Your task to perform on an android device: Search for Italian restaurants on Maps Image 0: 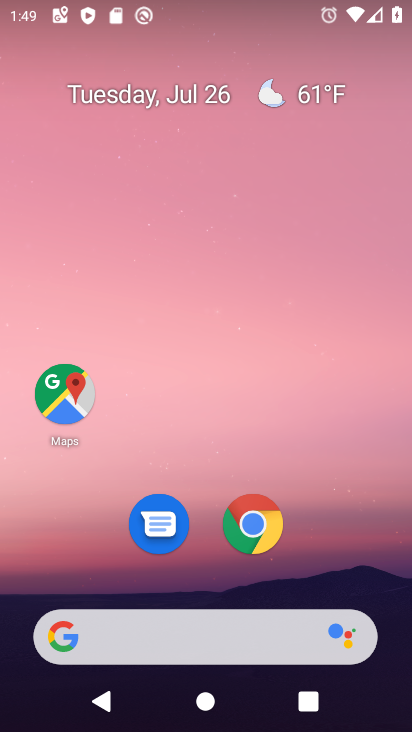
Step 0: press home button
Your task to perform on an android device: Search for Italian restaurants on Maps Image 1: 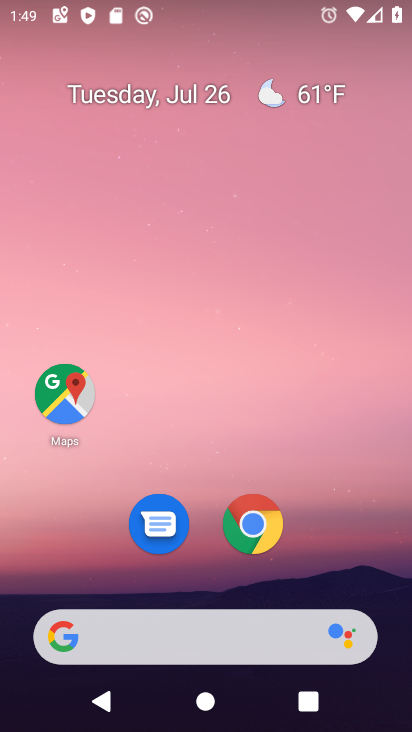
Step 1: click (66, 395)
Your task to perform on an android device: Search for Italian restaurants on Maps Image 2: 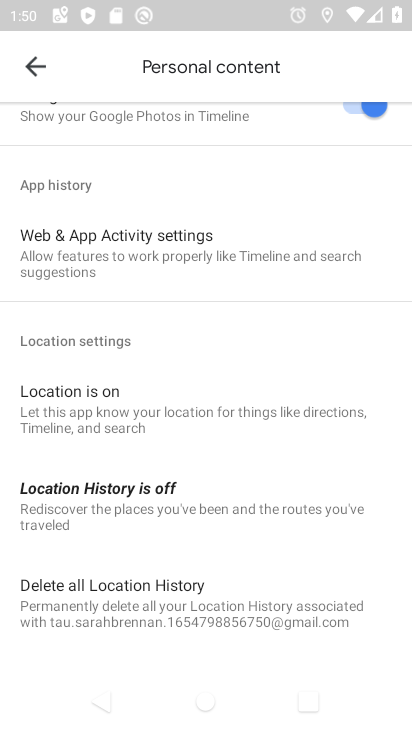
Step 2: click (19, 68)
Your task to perform on an android device: Search for Italian restaurants on Maps Image 3: 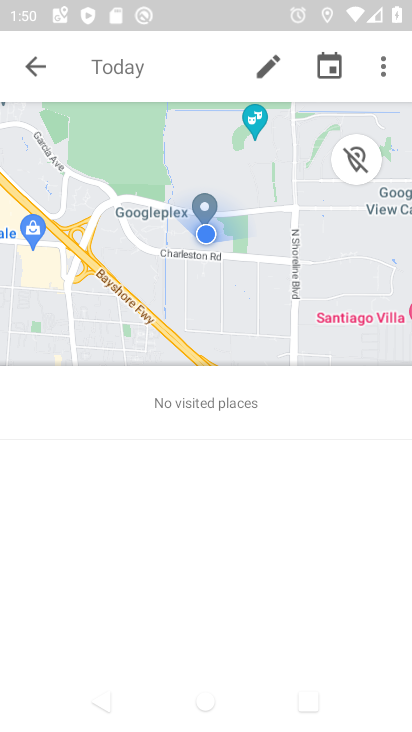
Step 3: click (37, 72)
Your task to perform on an android device: Search for Italian restaurants on Maps Image 4: 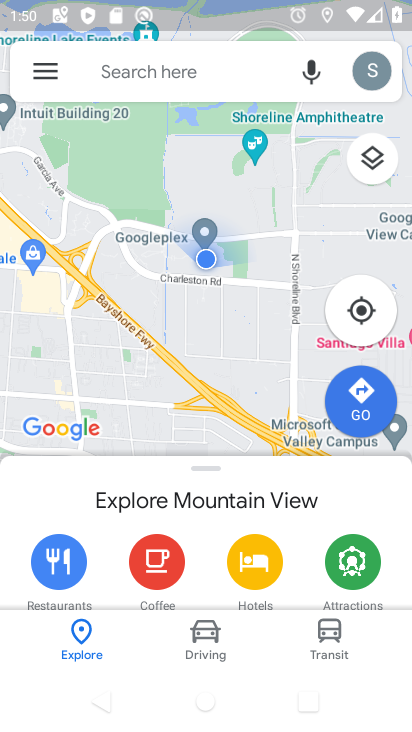
Step 4: click (138, 68)
Your task to perform on an android device: Search for Italian restaurants on Maps Image 5: 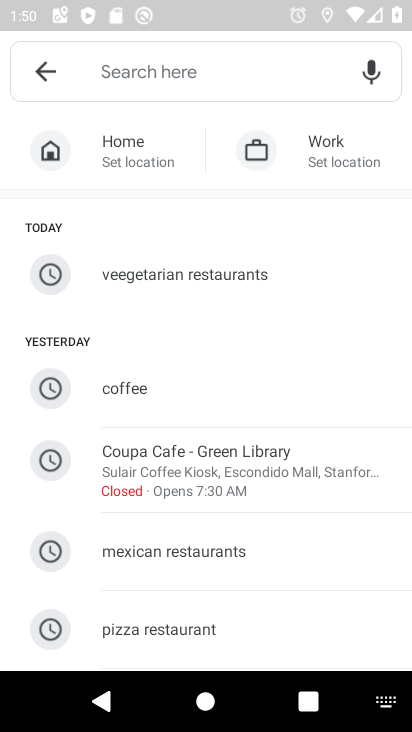
Step 5: drag from (200, 583) to (290, 178)
Your task to perform on an android device: Search for Italian restaurants on Maps Image 6: 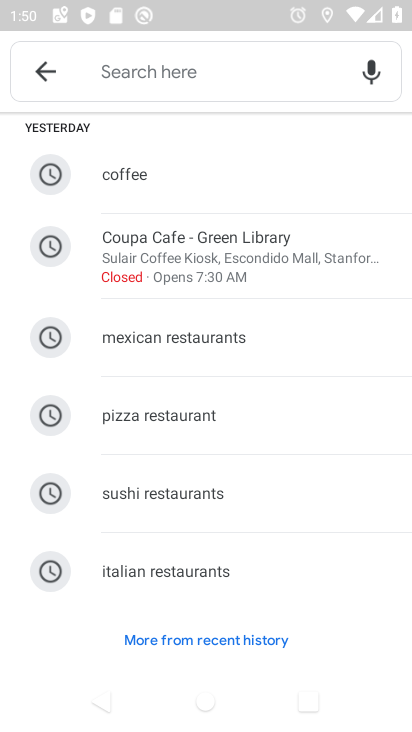
Step 6: click (177, 574)
Your task to perform on an android device: Search for Italian restaurants on Maps Image 7: 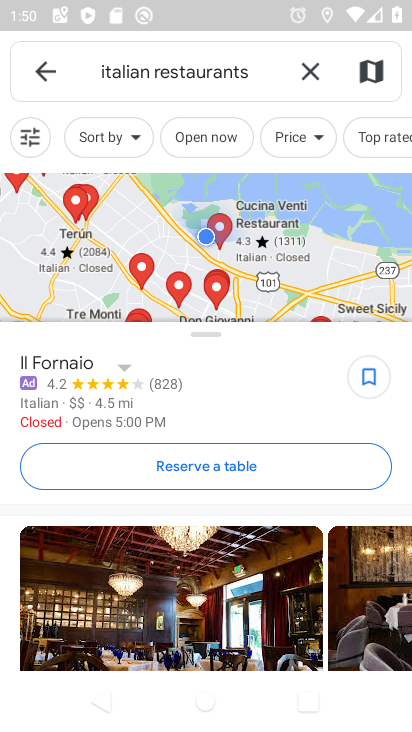
Step 7: task complete